Your task to perform on an android device: Go to network settings Image 0: 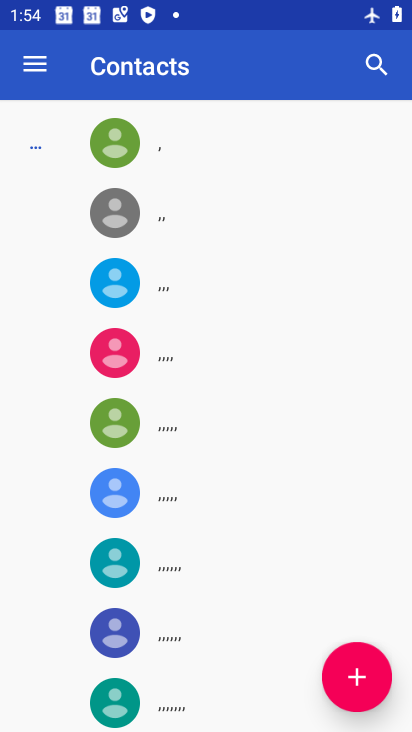
Step 0: press home button
Your task to perform on an android device: Go to network settings Image 1: 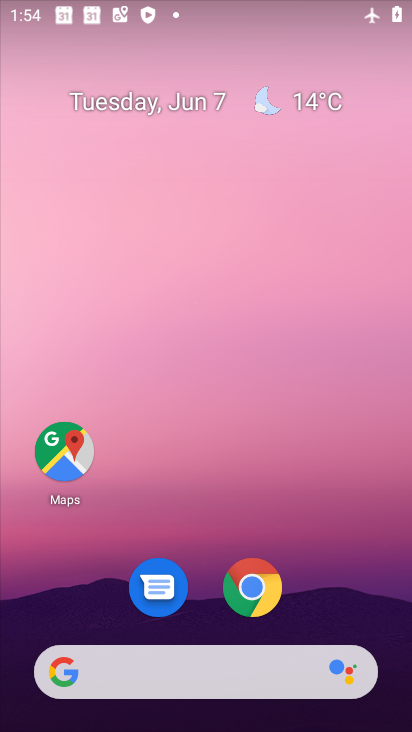
Step 1: drag from (225, 671) to (231, 329)
Your task to perform on an android device: Go to network settings Image 2: 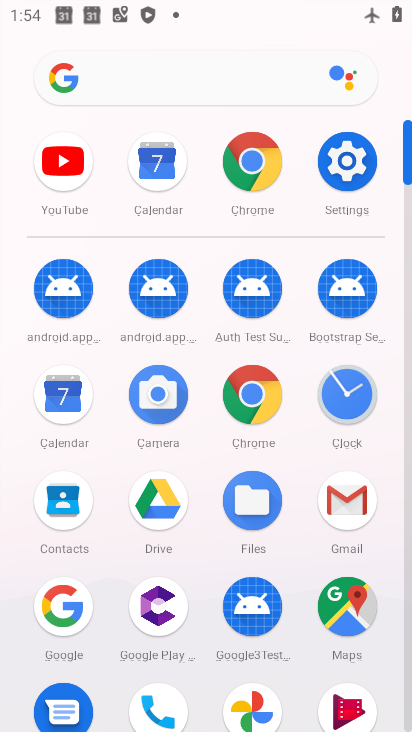
Step 2: click (355, 175)
Your task to perform on an android device: Go to network settings Image 3: 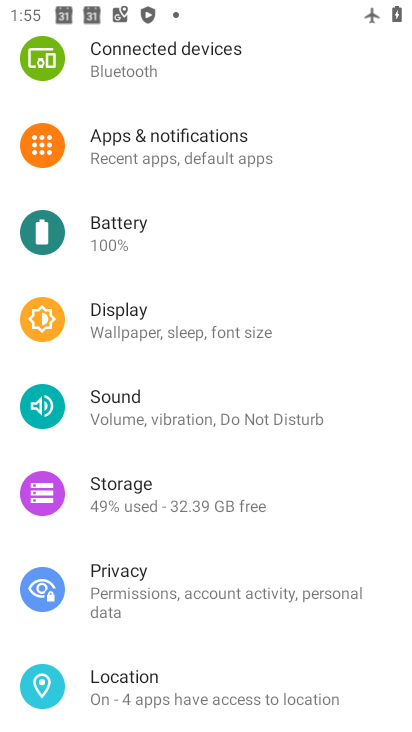
Step 3: drag from (236, 306) to (225, 658)
Your task to perform on an android device: Go to network settings Image 4: 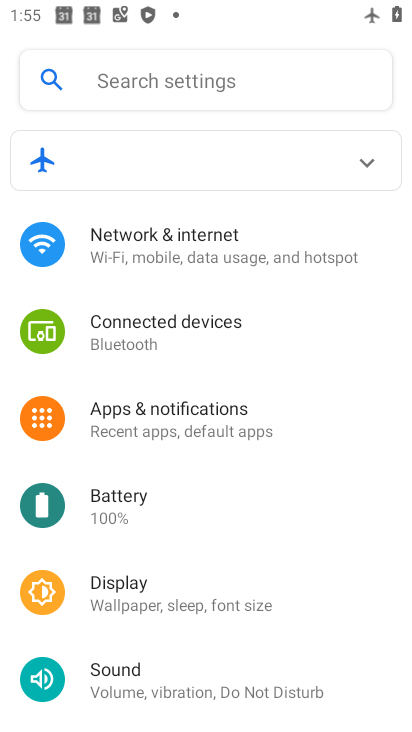
Step 4: drag from (238, 333) to (275, 570)
Your task to perform on an android device: Go to network settings Image 5: 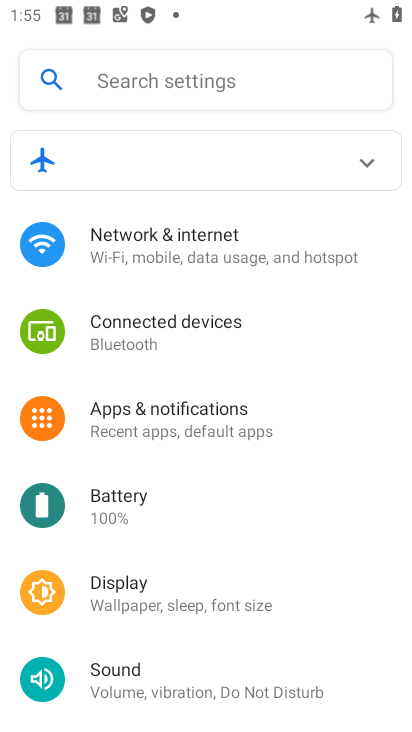
Step 5: click (247, 252)
Your task to perform on an android device: Go to network settings Image 6: 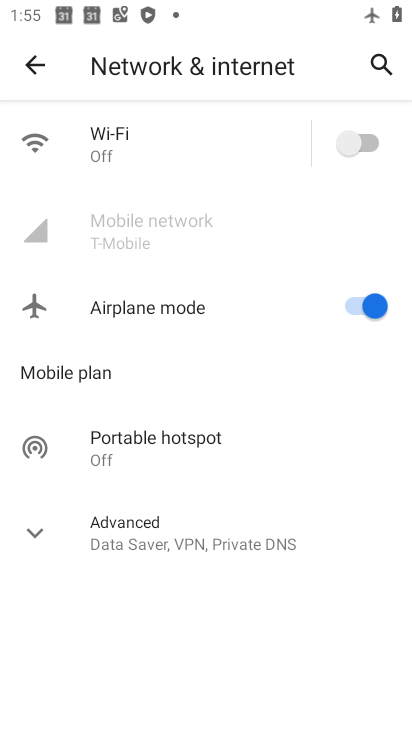
Step 6: task complete